Your task to perform on an android device: turn off javascript in the chrome app Image 0: 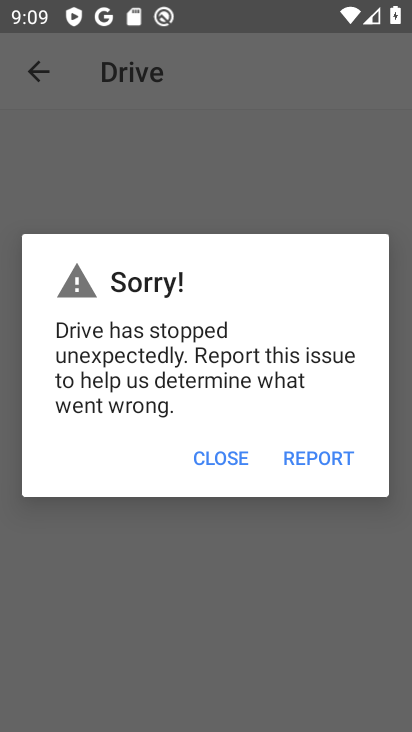
Step 0: press home button
Your task to perform on an android device: turn off javascript in the chrome app Image 1: 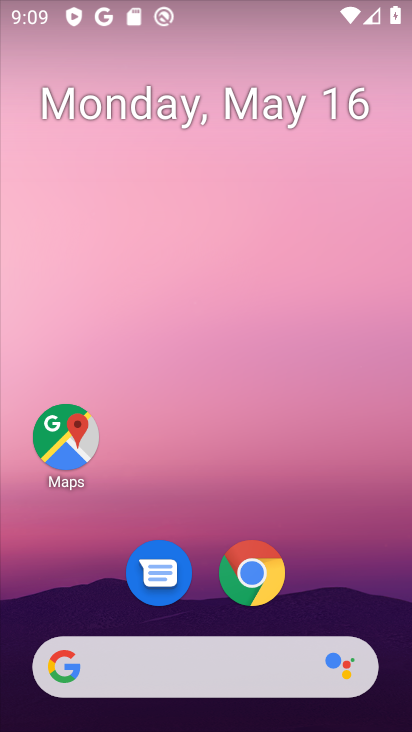
Step 1: drag from (331, 581) to (354, 200)
Your task to perform on an android device: turn off javascript in the chrome app Image 2: 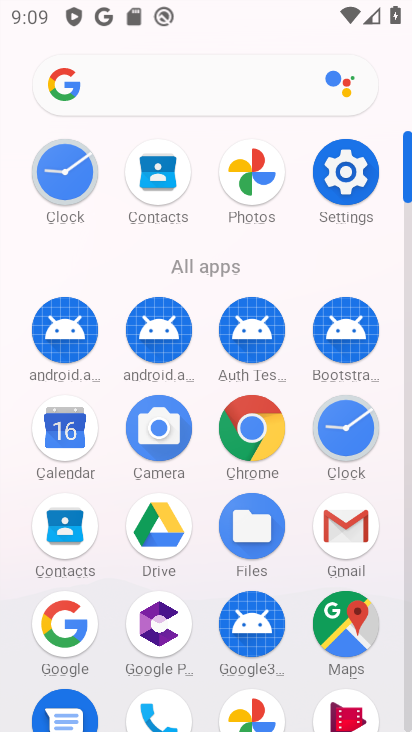
Step 2: click (253, 427)
Your task to perform on an android device: turn off javascript in the chrome app Image 3: 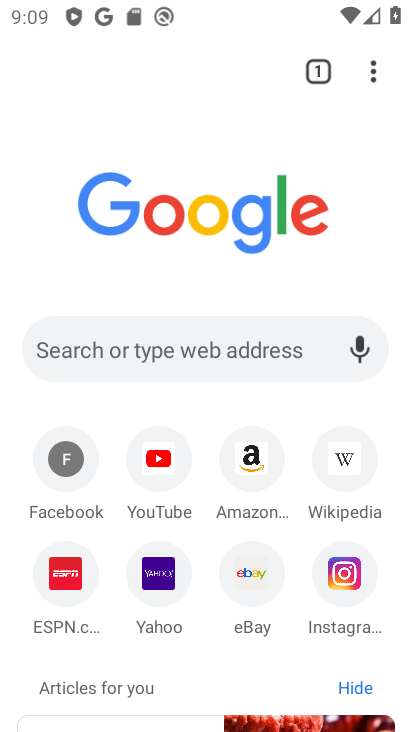
Step 3: drag from (380, 62) to (255, 594)
Your task to perform on an android device: turn off javascript in the chrome app Image 4: 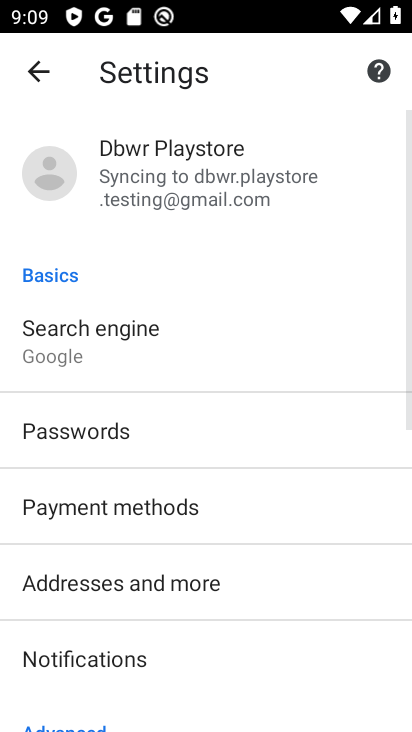
Step 4: drag from (297, 634) to (297, 56)
Your task to perform on an android device: turn off javascript in the chrome app Image 5: 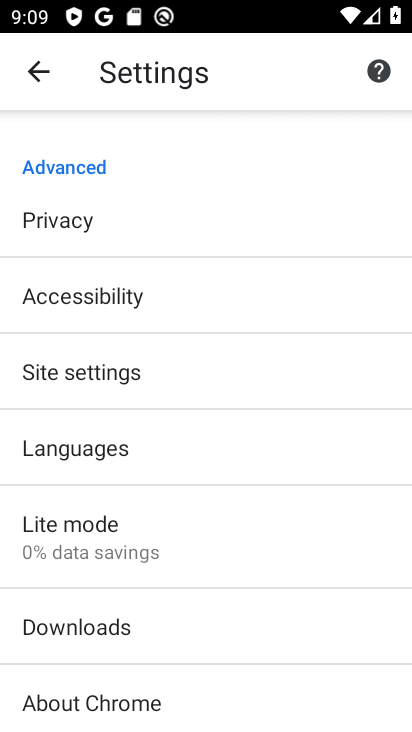
Step 5: click (140, 363)
Your task to perform on an android device: turn off javascript in the chrome app Image 6: 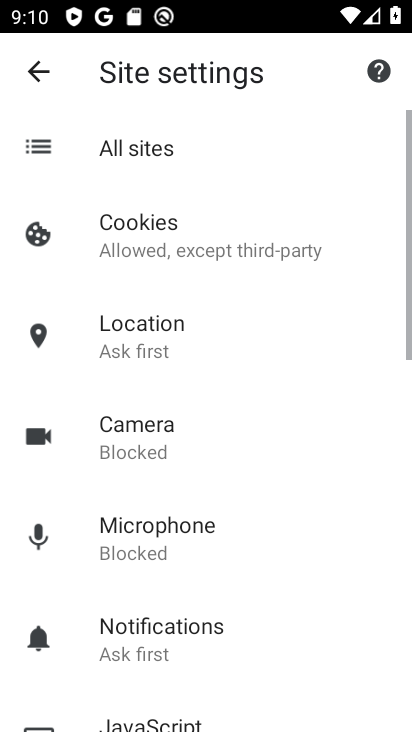
Step 6: drag from (251, 641) to (323, 206)
Your task to perform on an android device: turn off javascript in the chrome app Image 7: 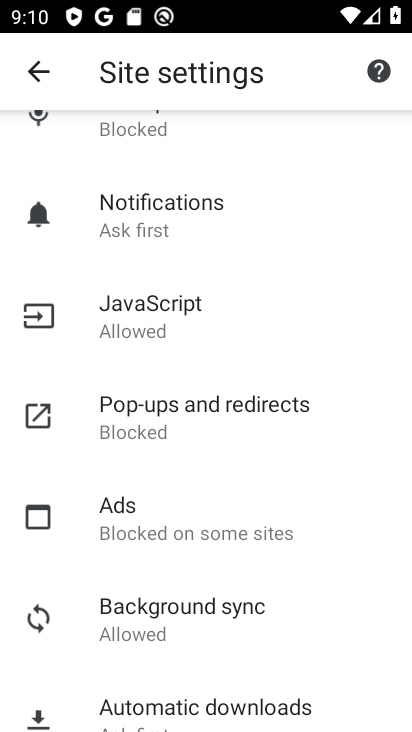
Step 7: click (192, 327)
Your task to perform on an android device: turn off javascript in the chrome app Image 8: 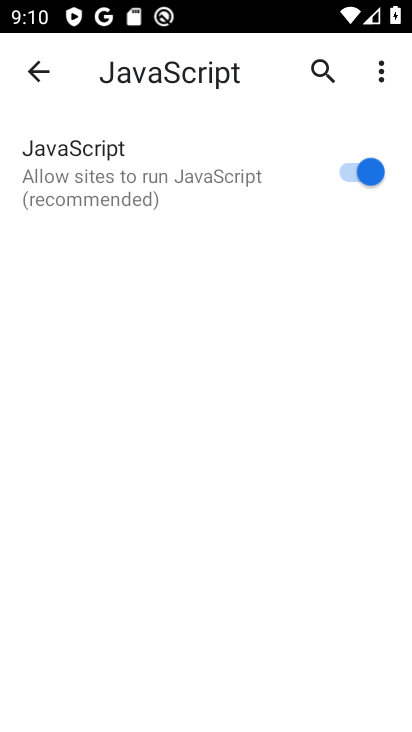
Step 8: click (348, 176)
Your task to perform on an android device: turn off javascript in the chrome app Image 9: 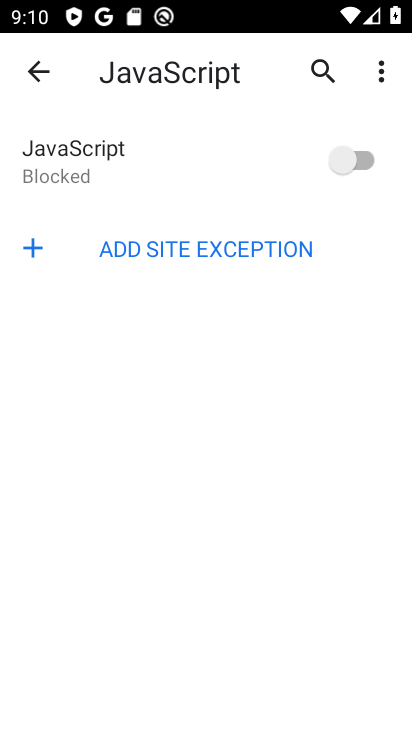
Step 9: task complete